Your task to perform on an android device: allow cookies in the chrome app Image 0: 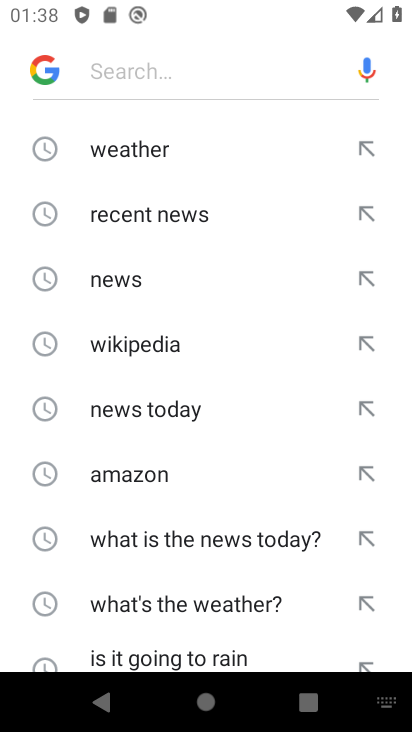
Step 0: press home button
Your task to perform on an android device: allow cookies in the chrome app Image 1: 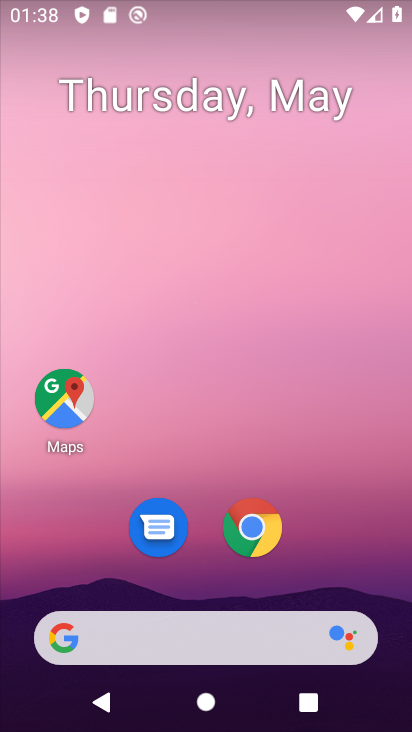
Step 1: drag from (205, 591) to (216, 53)
Your task to perform on an android device: allow cookies in the chrome app Image 2: 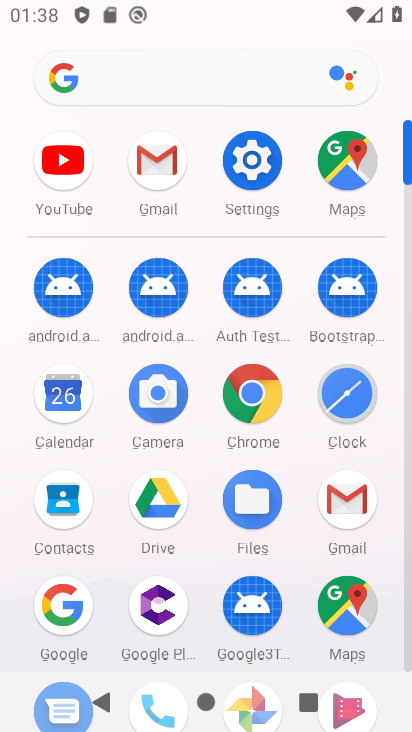
Step 2: click (243, 388)
Your task to perform on an android device: allow cookies in the chrome app Image 3: 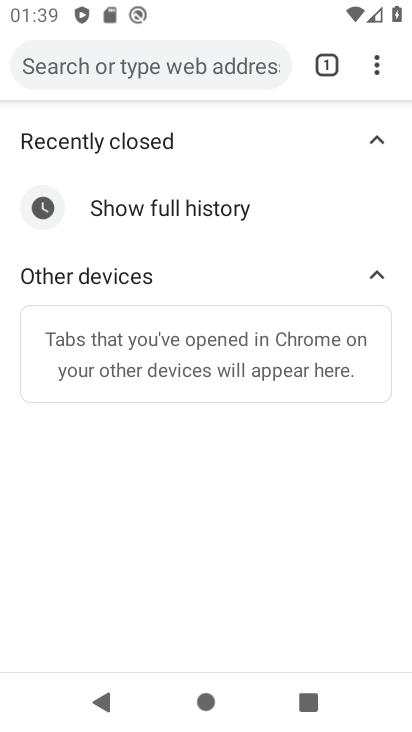
Step 3: click (378, 65)
Your task to perform on an android device: allow cookies in the chrome app Image 4: 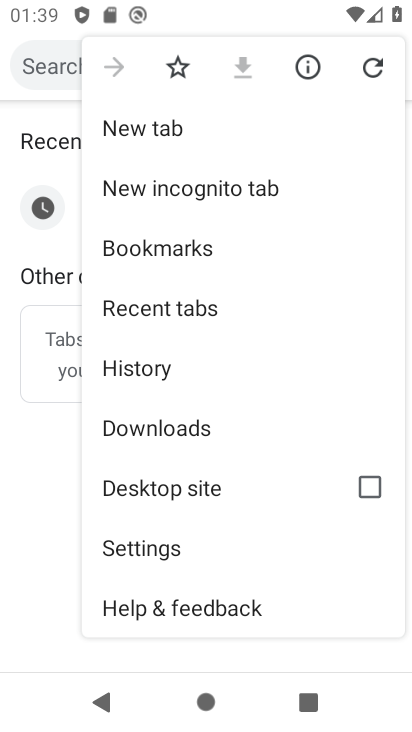
Step 4: click (172, 555)
Your task to perform on an android device: allow cookies in the chrome app Image 5: 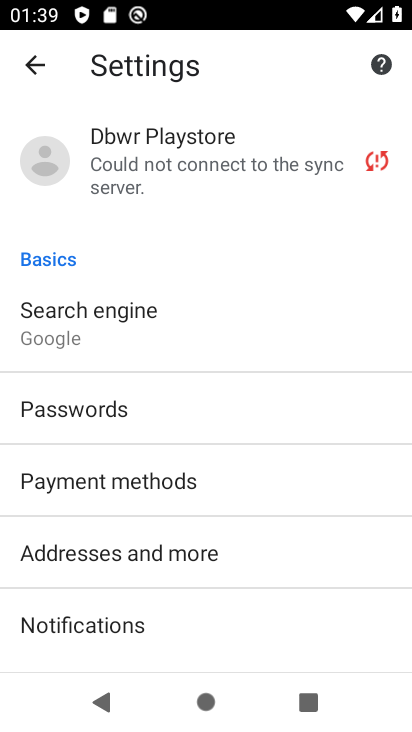
Step 5: drag from (204, 568) to (243, 226)
Your task to perform on an android device: allow cookies in the chrome app Image 6: 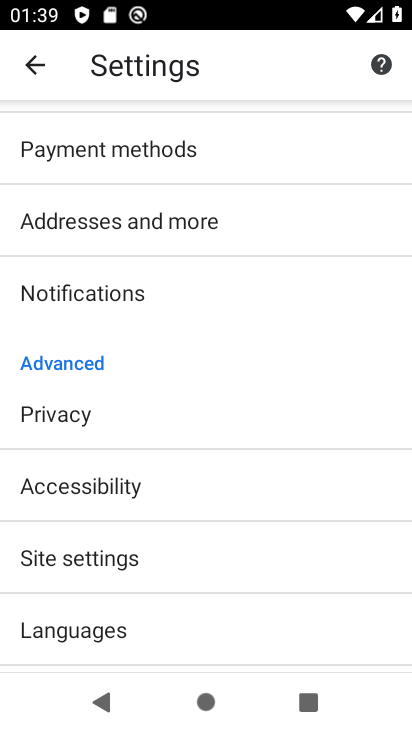
Step 6: click (136, 554)
Your task to perform on an android device: allow cookies in the chrome app Image 7: 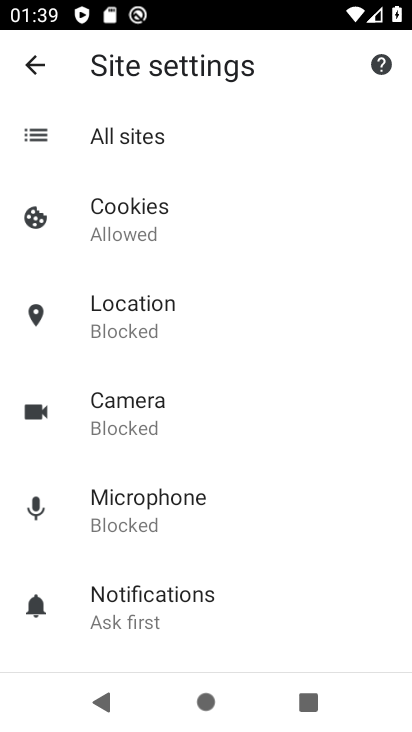
Step 7: click (191, 222)
Your task to perform on an android device: allow cookies in the chrome app Image 8: 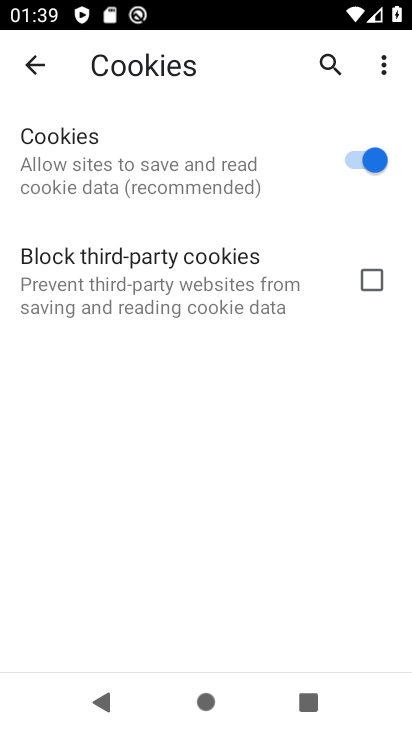
Step 8: task complete